Your task to perform on an android device: turn off airplane mode Image 0: 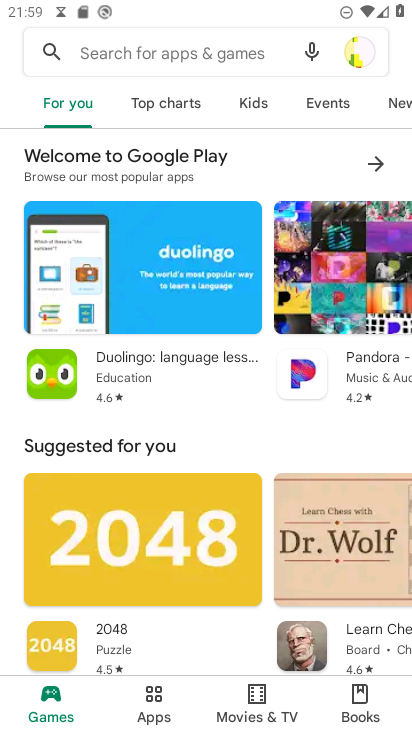
Step 0: drag from (238, 652) to (314, 359)
Your task to perform on an android device: turn off airplane mode Image 1: 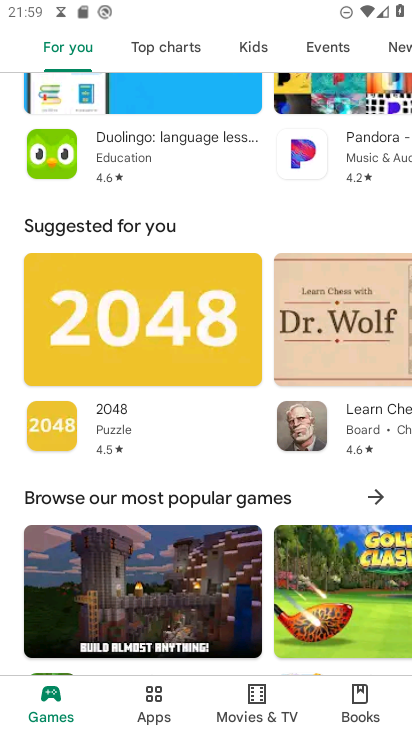
Step 1: drag from (207, 195) to (257, 644)
Your task to perform on an android device: turn off airplane mode Image 2: 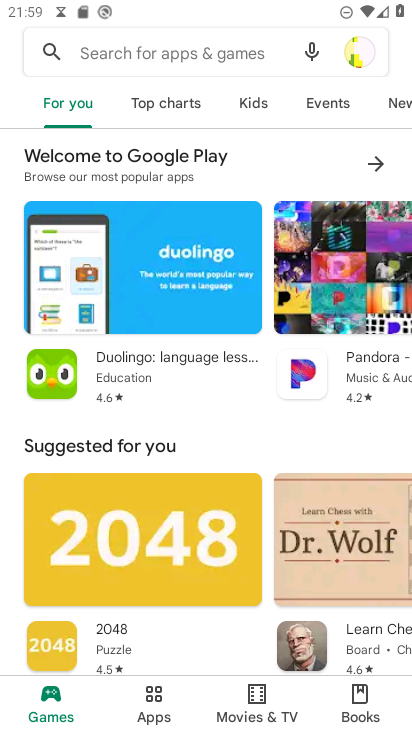
Step 2: press home button
Your task to perform on an android device: turn off airplane mode Image 3: 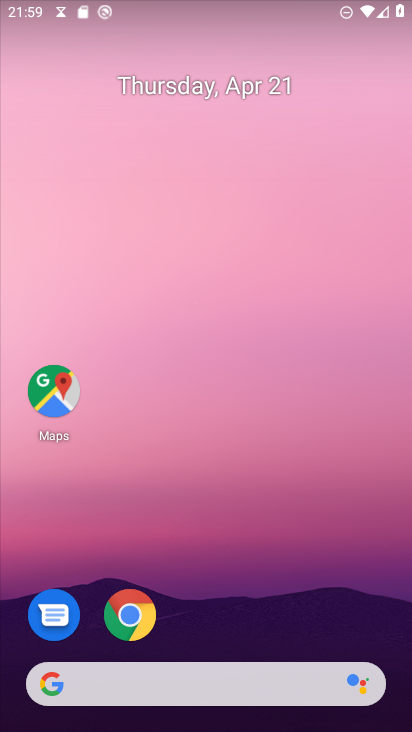
Step 3: drag from (185, 619) to (272, 257)
Your task to perform on an android device: turn off airplane mode Image 4: 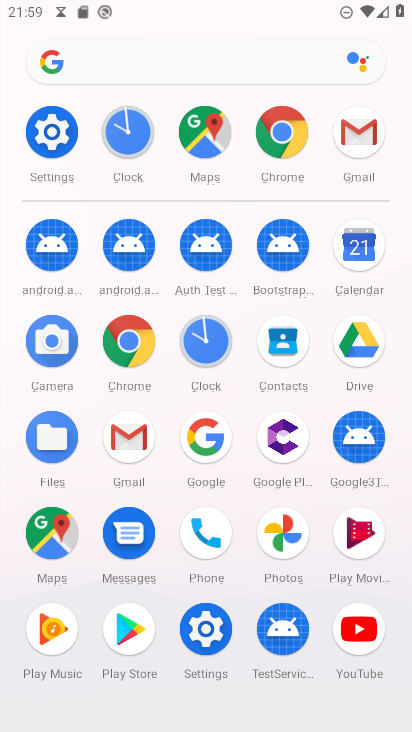
Step 4: click (55, 141)
Your task to perform on an android device: turn off airplane mode Image 5: 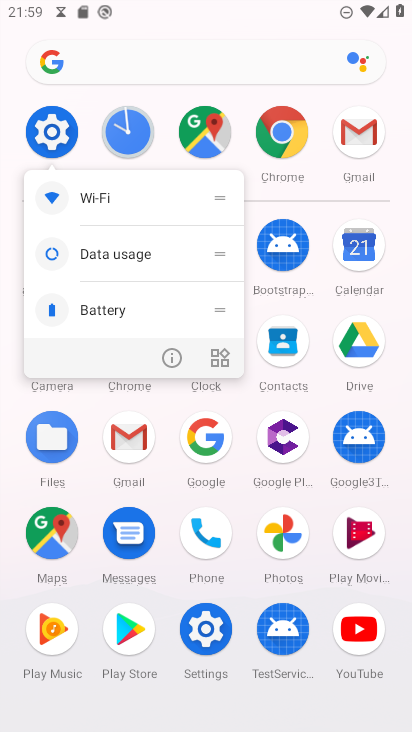
Step 5: click (175, 370)
Your task to perform on an android device: turn off airplane mode Image 6: 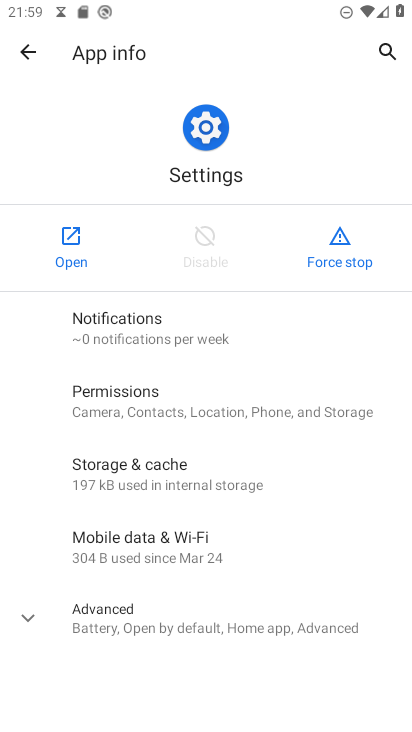
Step 6: click (88, 244)
Your task to perform on an android device: turn off airplane mode Image 7: 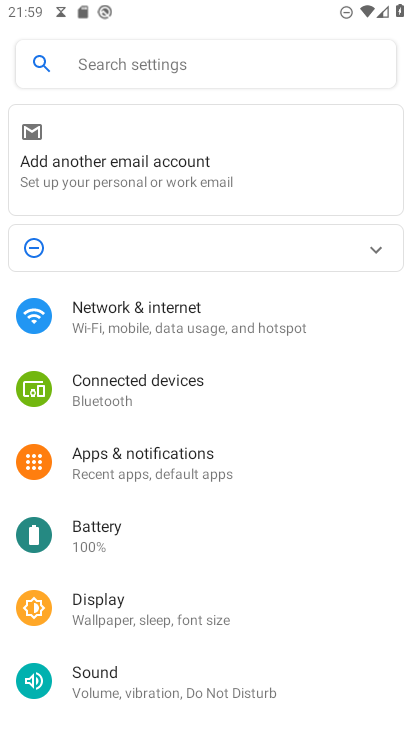
Step 7: drag from (151, 660) to (222, 294)
Your task to perform on an android device: turn off airplane mode Image 8: 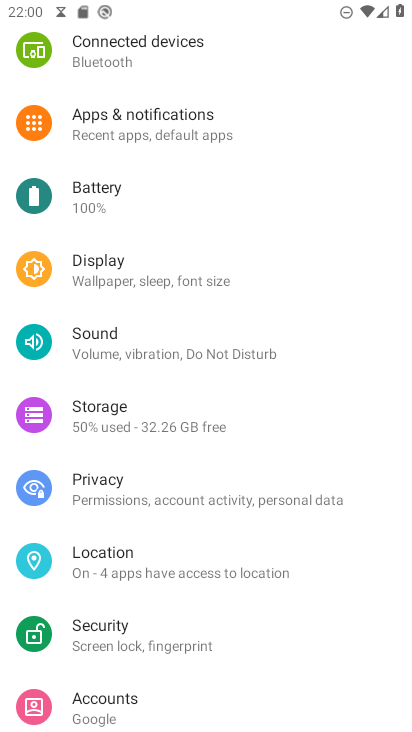
Step 8: drag from (205, 102) to (278, 500)
Your task to perform on an android device: turn off airplane mode Image 9: 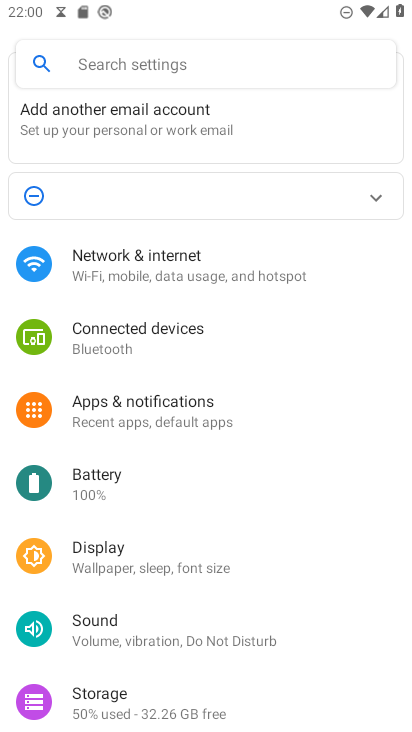
Step 9: click (170, 272)
Your task to perform on an android device: turn off airplane mode Image 10: 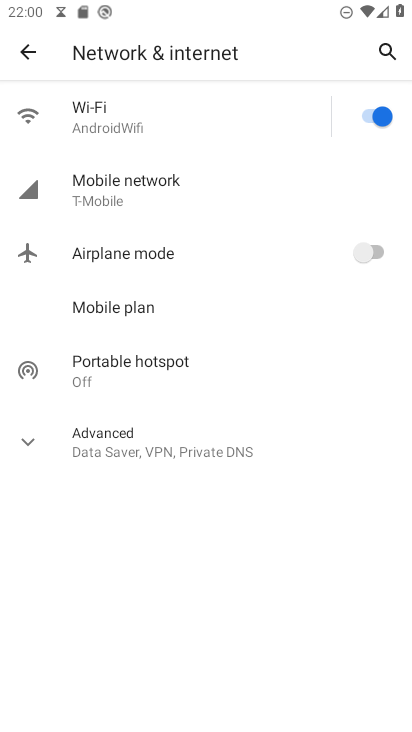
Step 10: task complete